Your task to perform on an android device: Add alienware aurora to the cart on ebay, then select checkout. Image 0: 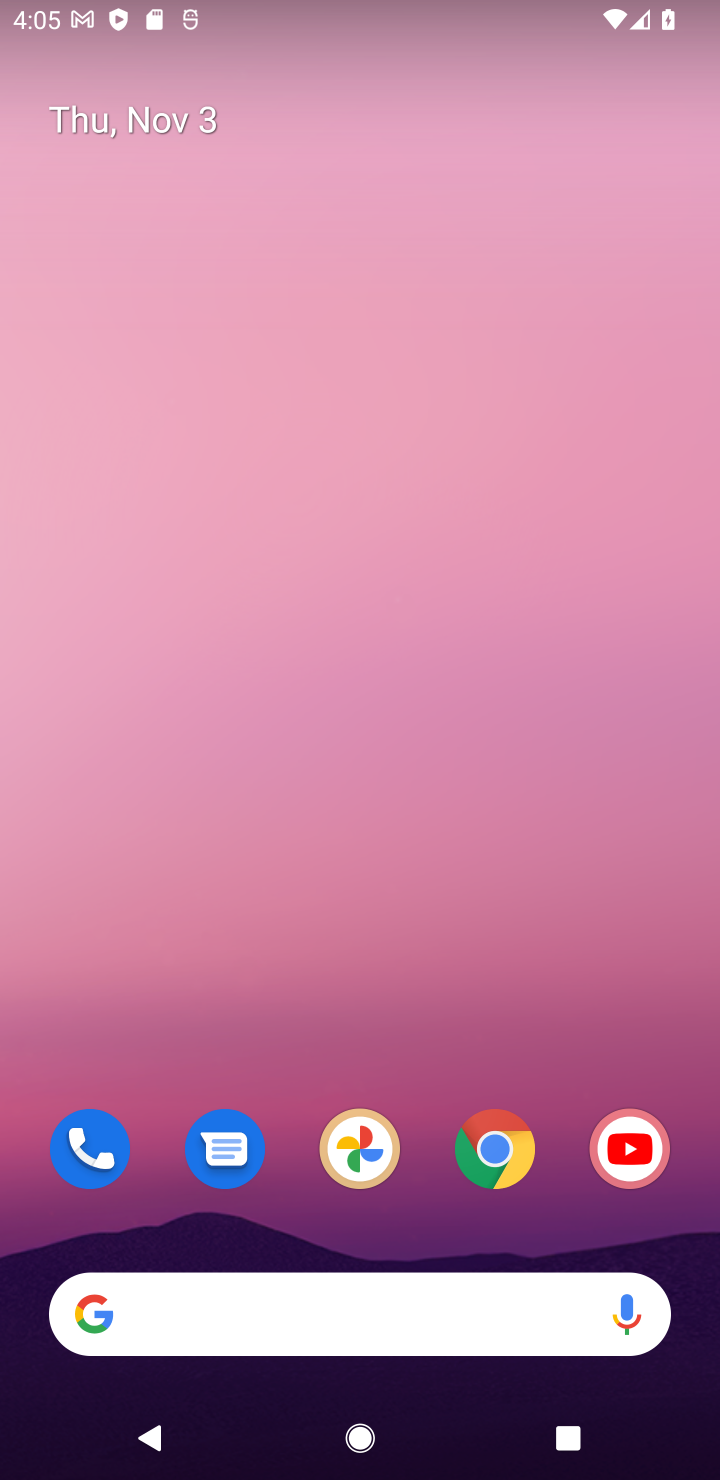
Step 0: drag from (431, 1039) to (343, 18)
Your task to perform on an android device: Add alienware aurora to the cart on ebay, then select checkout. Image 1: 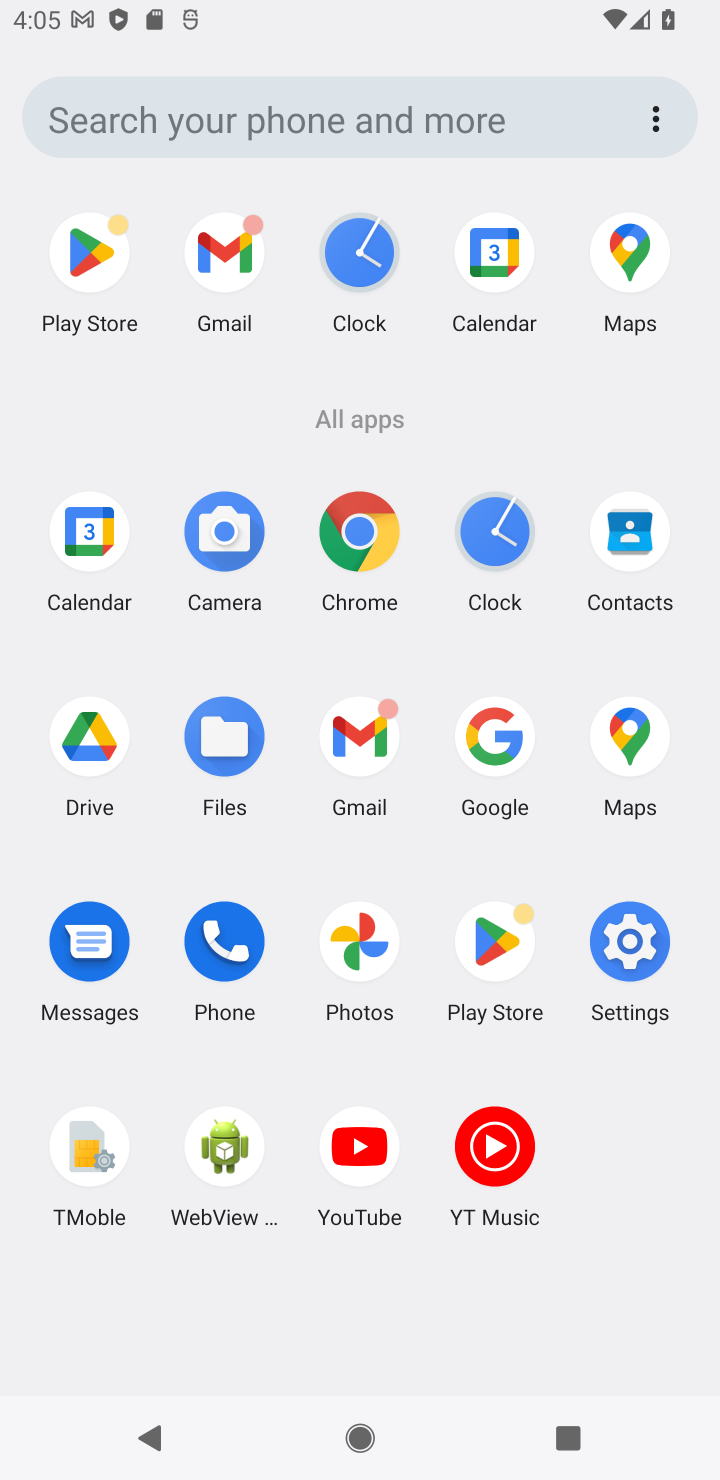
Step 1: click (355, 528)
Your task to perform on an android device: Add alienware aurora to the cart on ebay, then select checkout. Image 2: 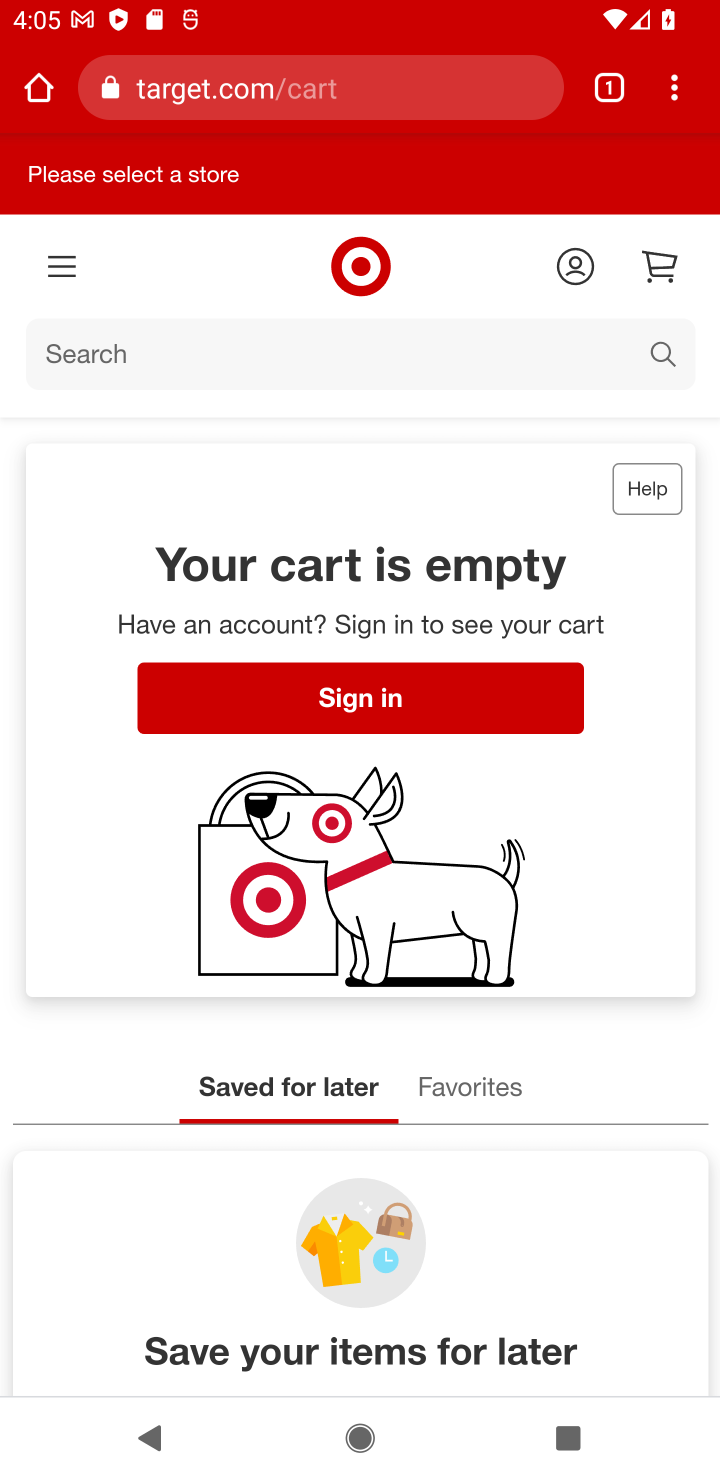
Step 2: click (250, 80)
Your task to perform on an android device: Add alienware aurora to the cart on ebay, then select checkout. Image 3: 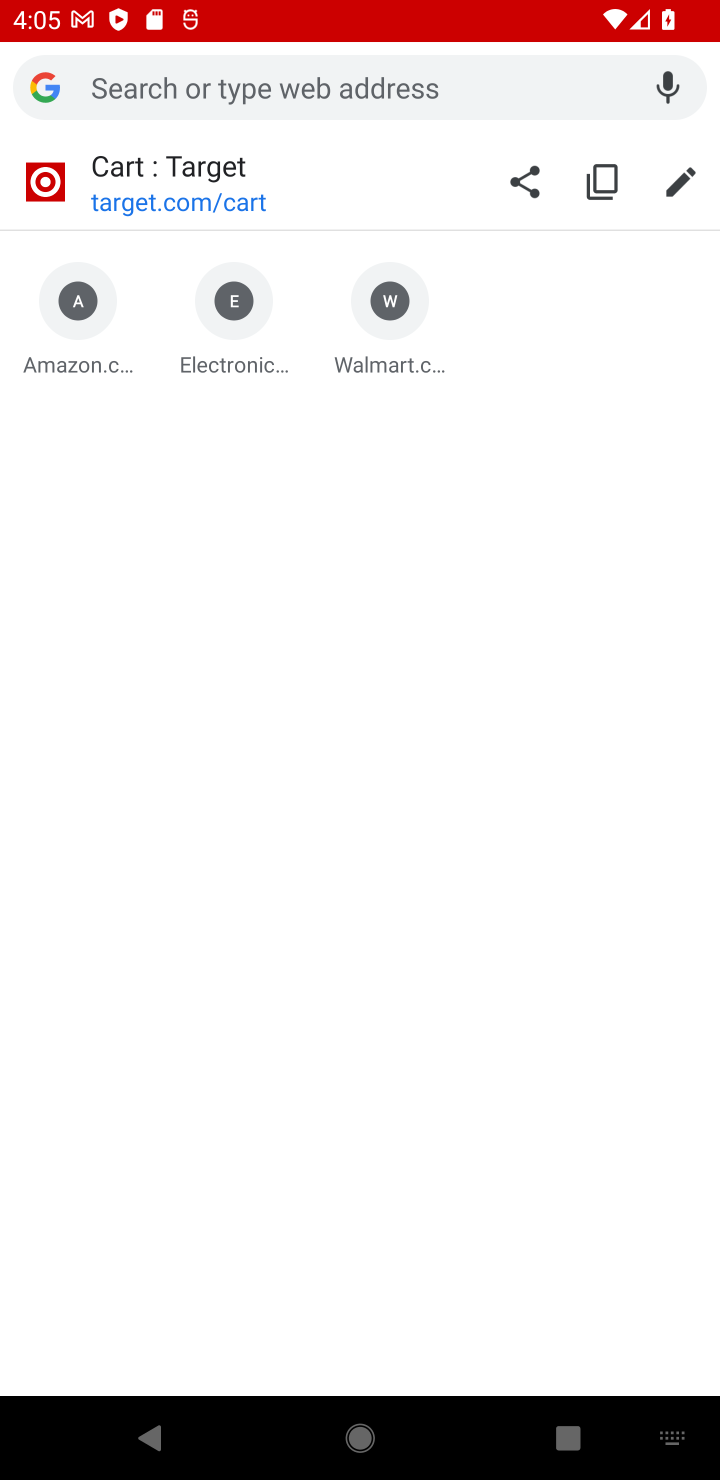
Step 3: type "ebay"
Your task to perform on an android device: Add alienware aurora to the cart on ebay, then select checkout. Image 4: 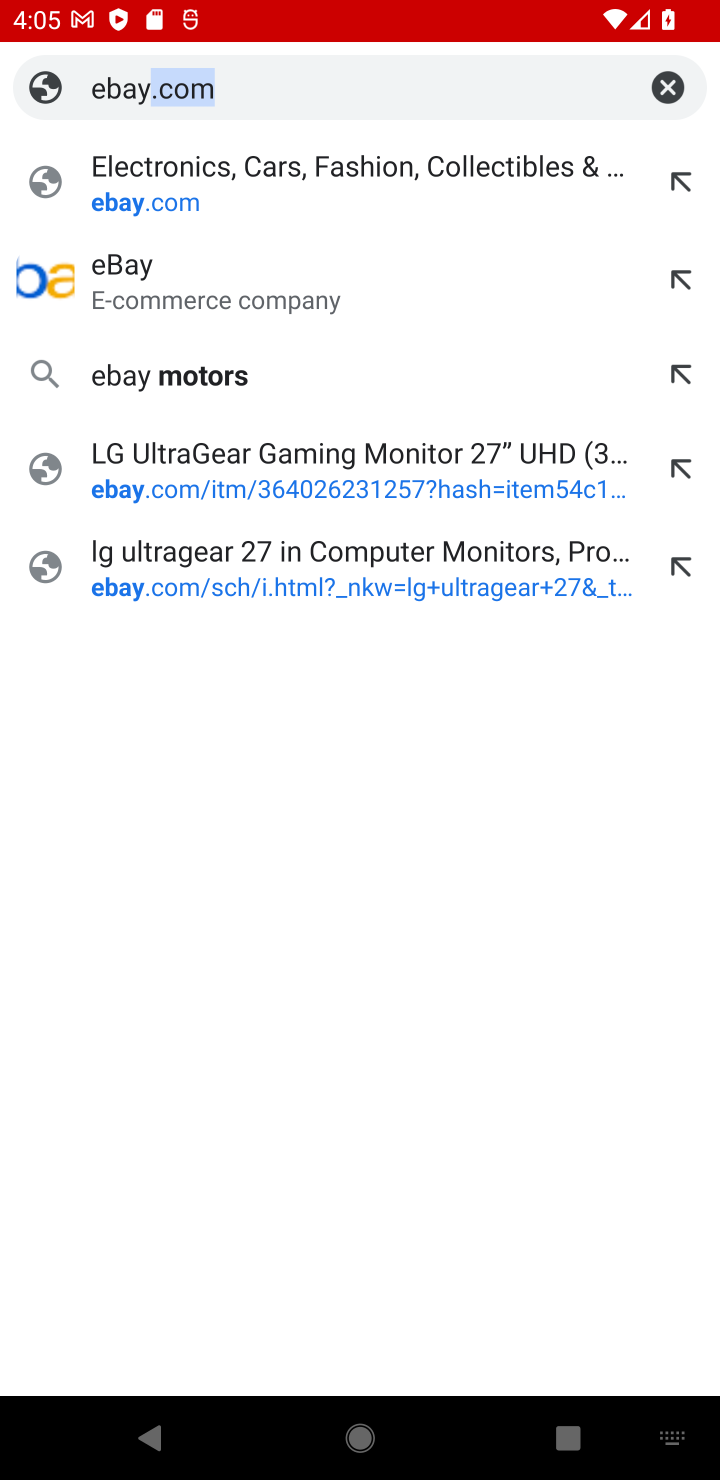
Step 4: click (267, 194)
Your task to perform on an android device: Add alienware aurora to the cart on ebay, then select checkout. Image 5: 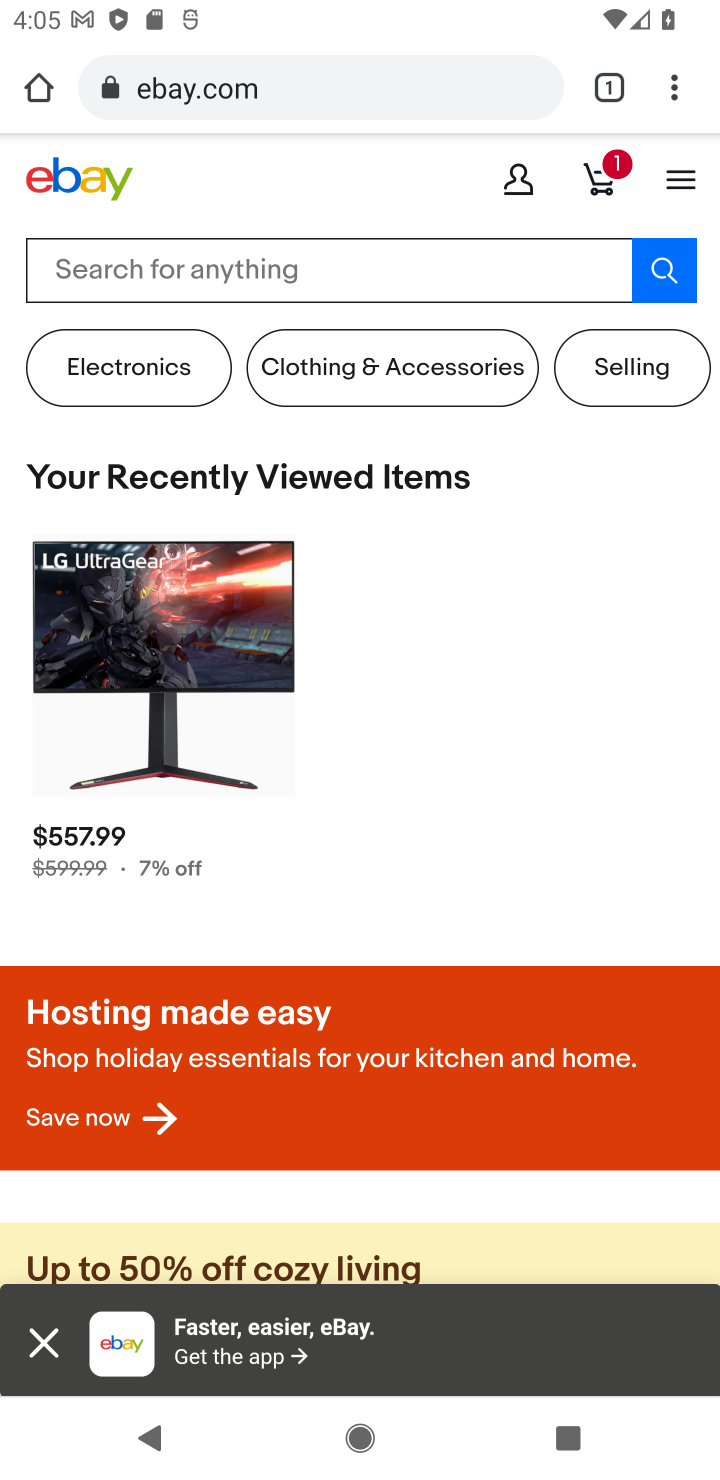
Step 5: click (269, 259)
Your task to perform on an android device: Add alienware aurora to the cart on ebay, then select checkout. Image 6: 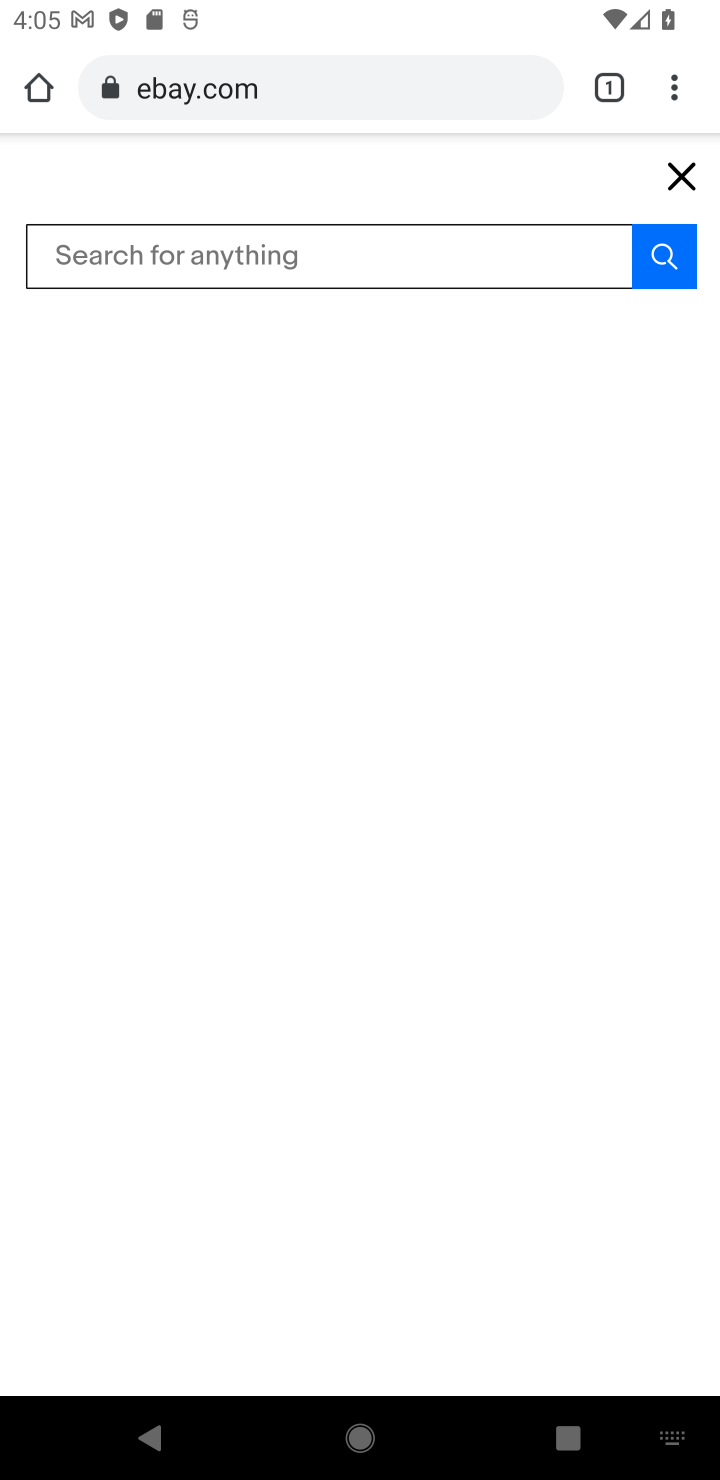
Step 6: type "alienware aurora"
Your task to perform on an android device: Add alienware aurora to the cart on ebay, then select checkout. Image 7: 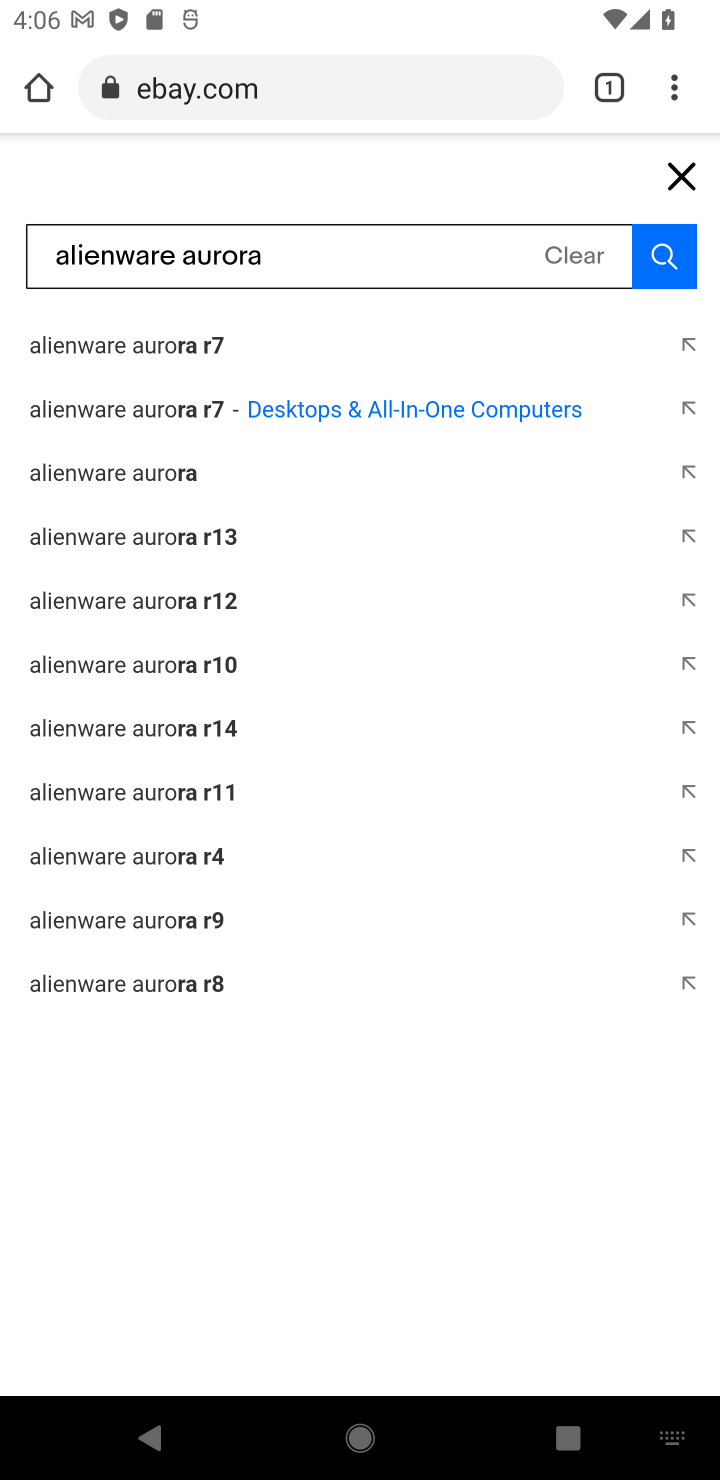
Step 7: click (380, 406)
Your task to perform on an android device: Add alienware aurora to the cart on ebay, then select checkout. Image 8: 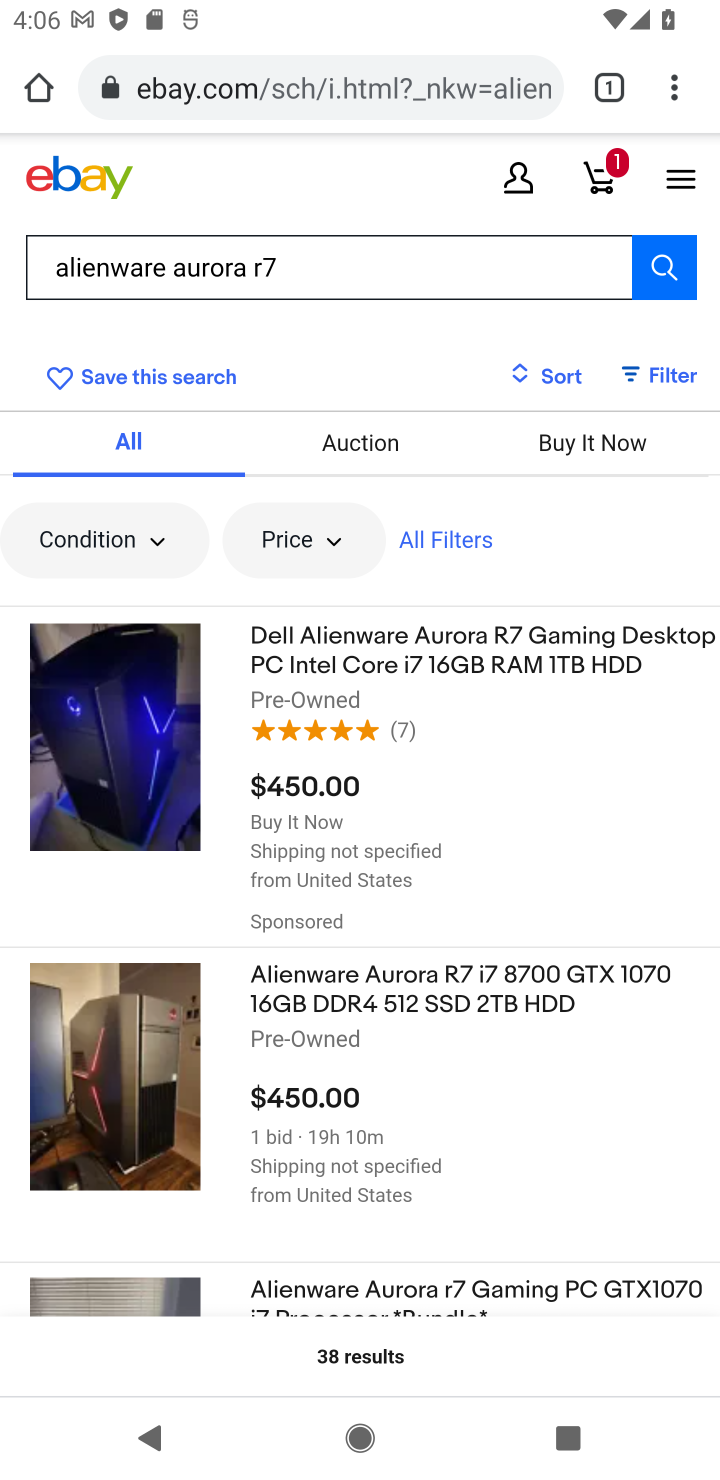
Step 8: click (348, 668)
Your task to perform on an android device: Add alienware aurora to the cart on ebay, then select checkout. Image 9: 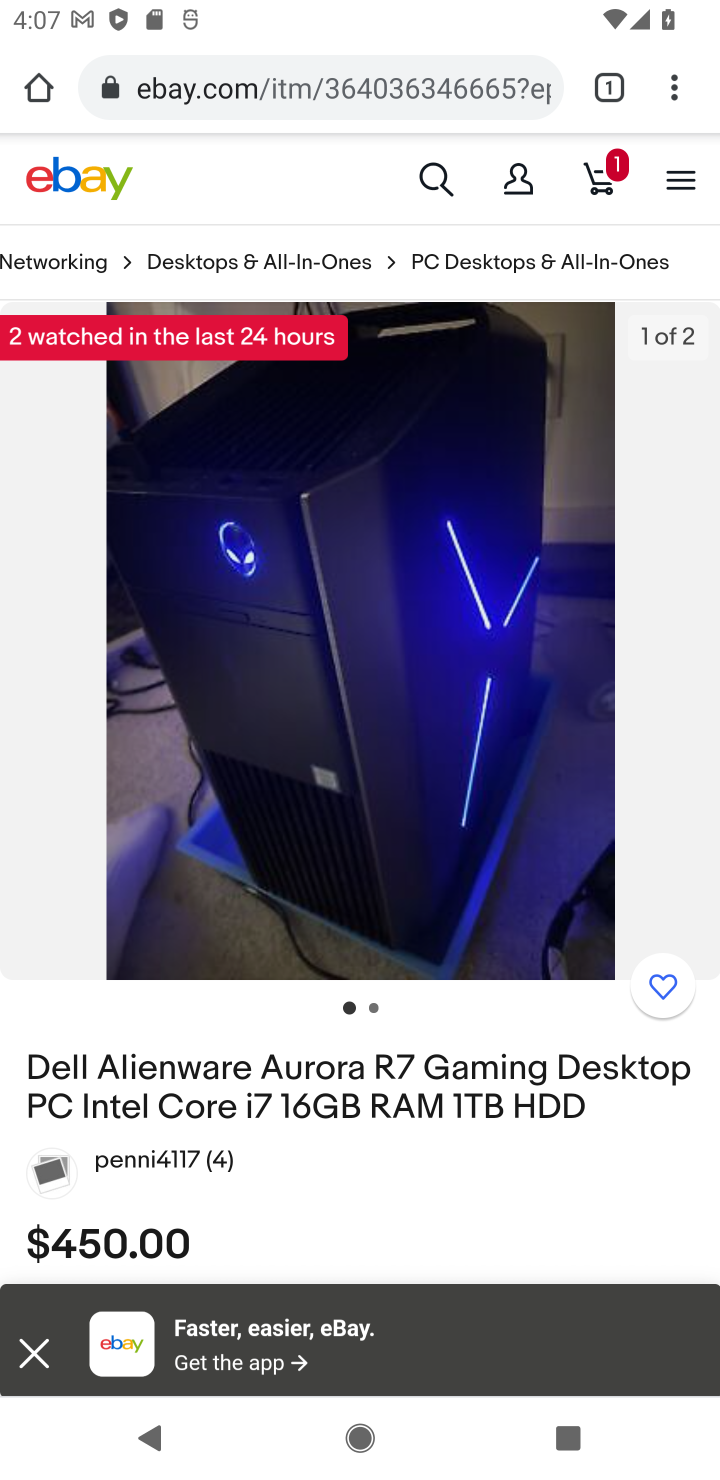
Step 9: click (363, 1321)
Your task to perform on an android device: Add alienware aurora to the cart on ebay, then select checkout. Image 10: 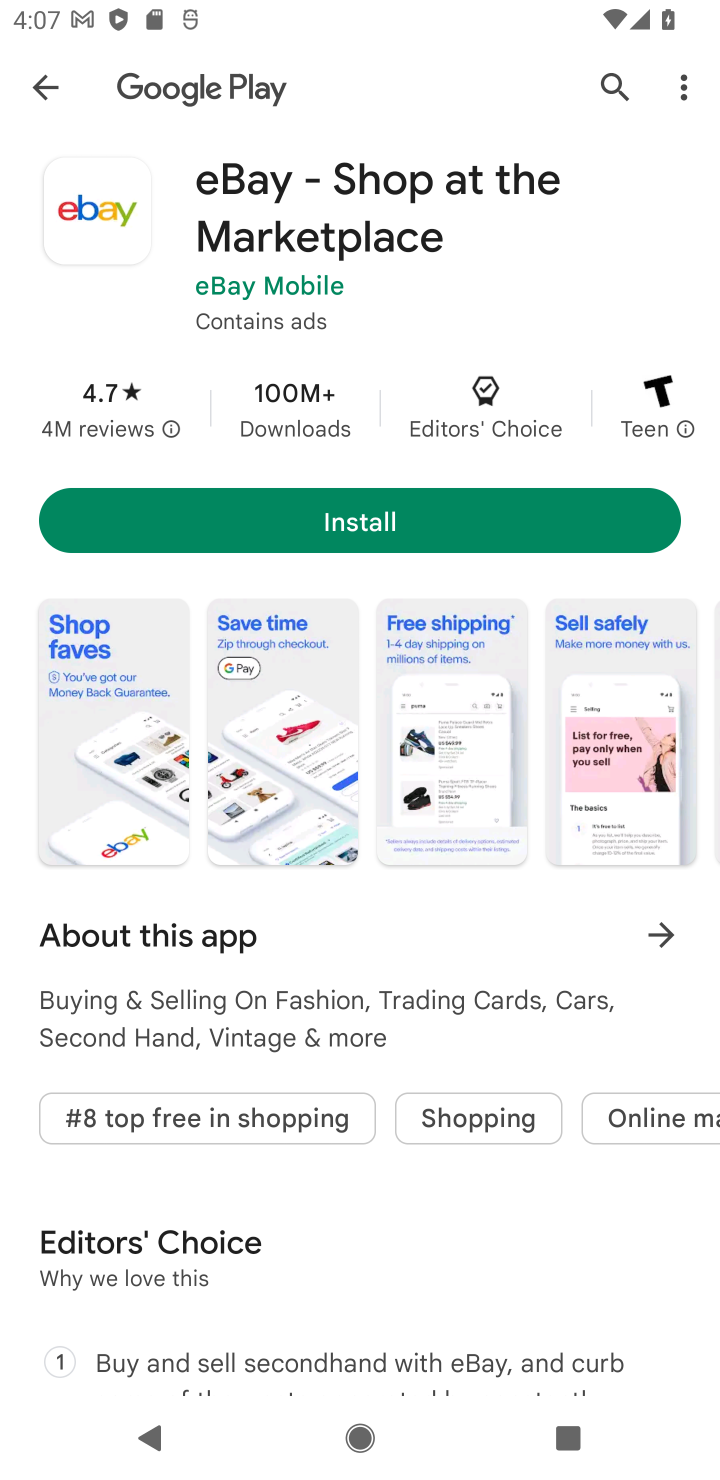
Step 10: click (41, 99)
Your task to perform on an android device: Add alienware aurora to the cart on ebay, then select checkout. Image 11: 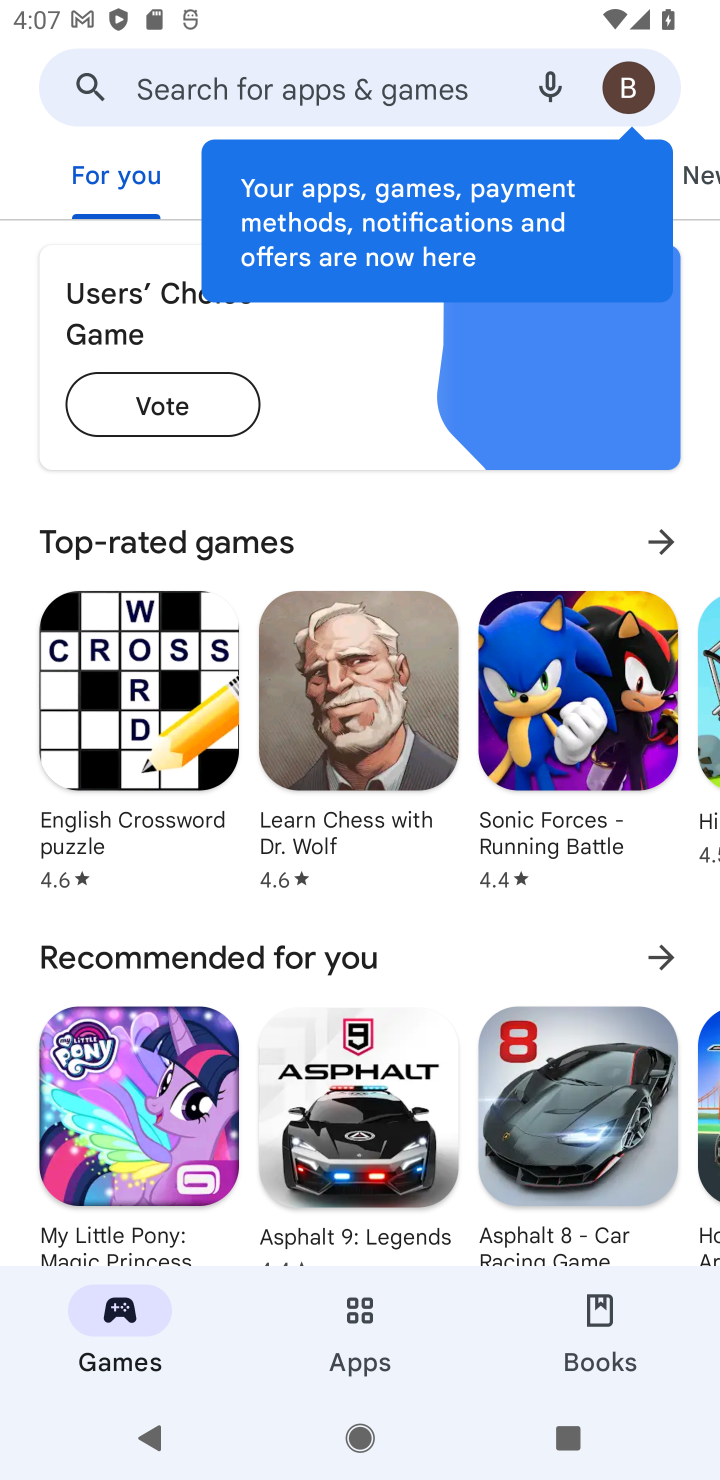
Step 11: press back button
Your task to perform on an android device: Add alienware aurora to the cart on ebay, then select checkout. Image 12: 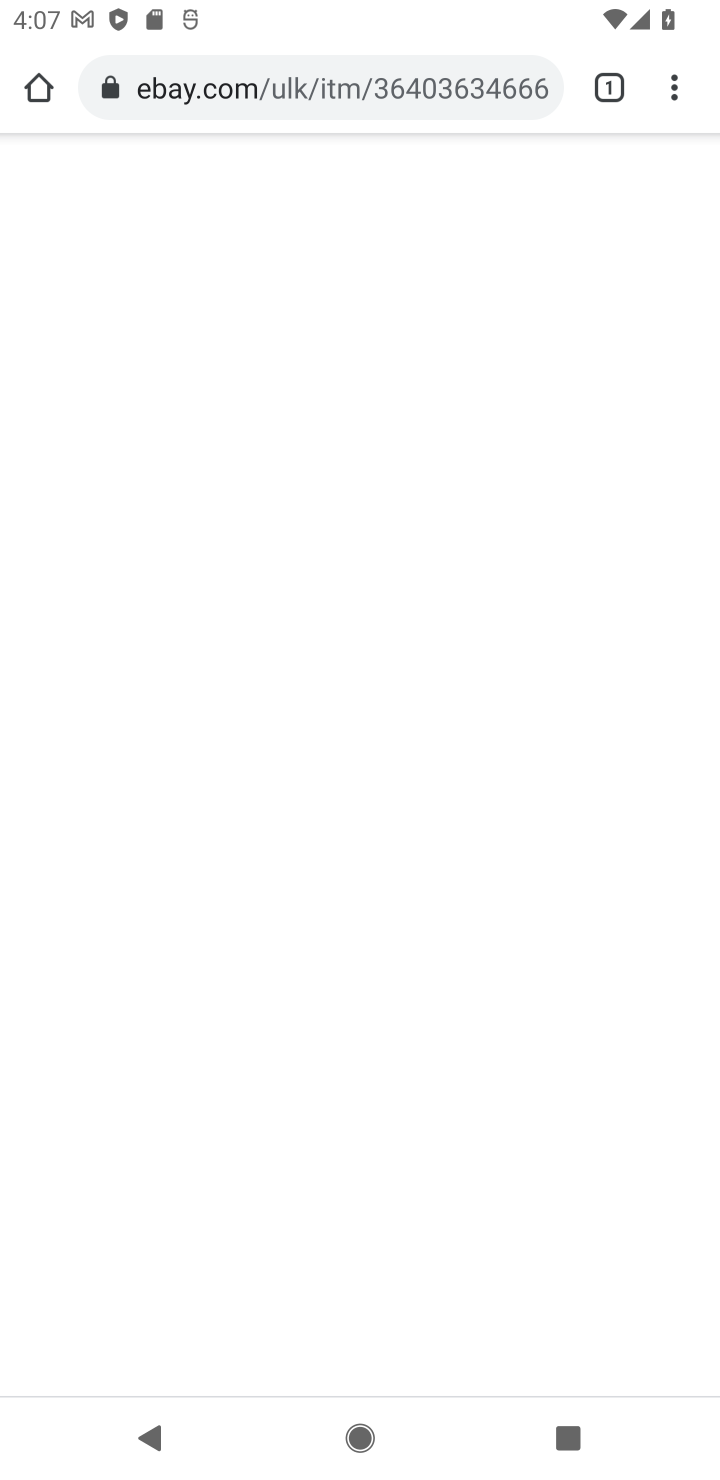
Step 12: press back button
Your task to perform on an android device: Add alienware aurora to the cart on ebay, then select checkout. Image 13: 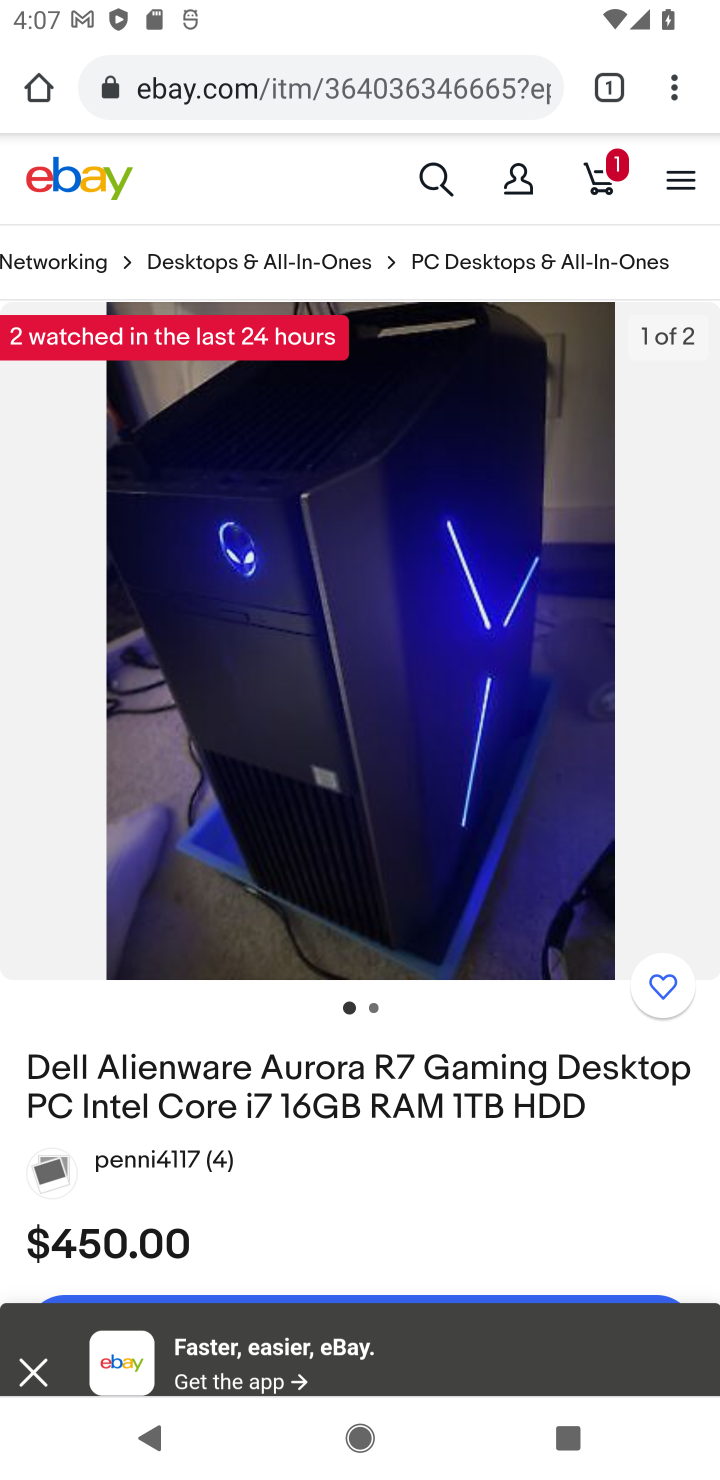
Step 13: drag from (469, 1129) to (427, 469)
Your task to perform on an android device: Add alienware aurora to the cart on ebay, then select checkout. Image 14: 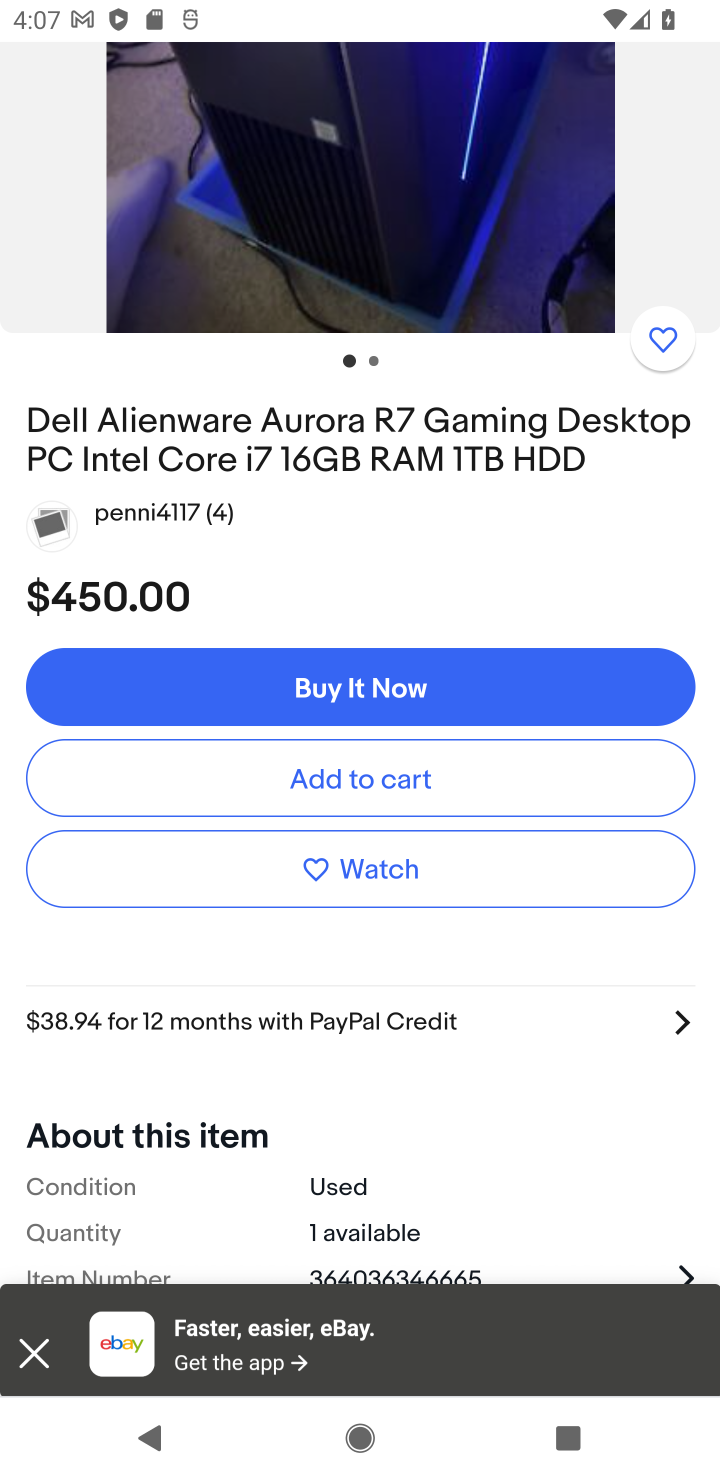
Step 14: click (376, 778)
Your task to perform on an android device: Add alienware aurora to the cart on ebay, then select checkout. Image 15: 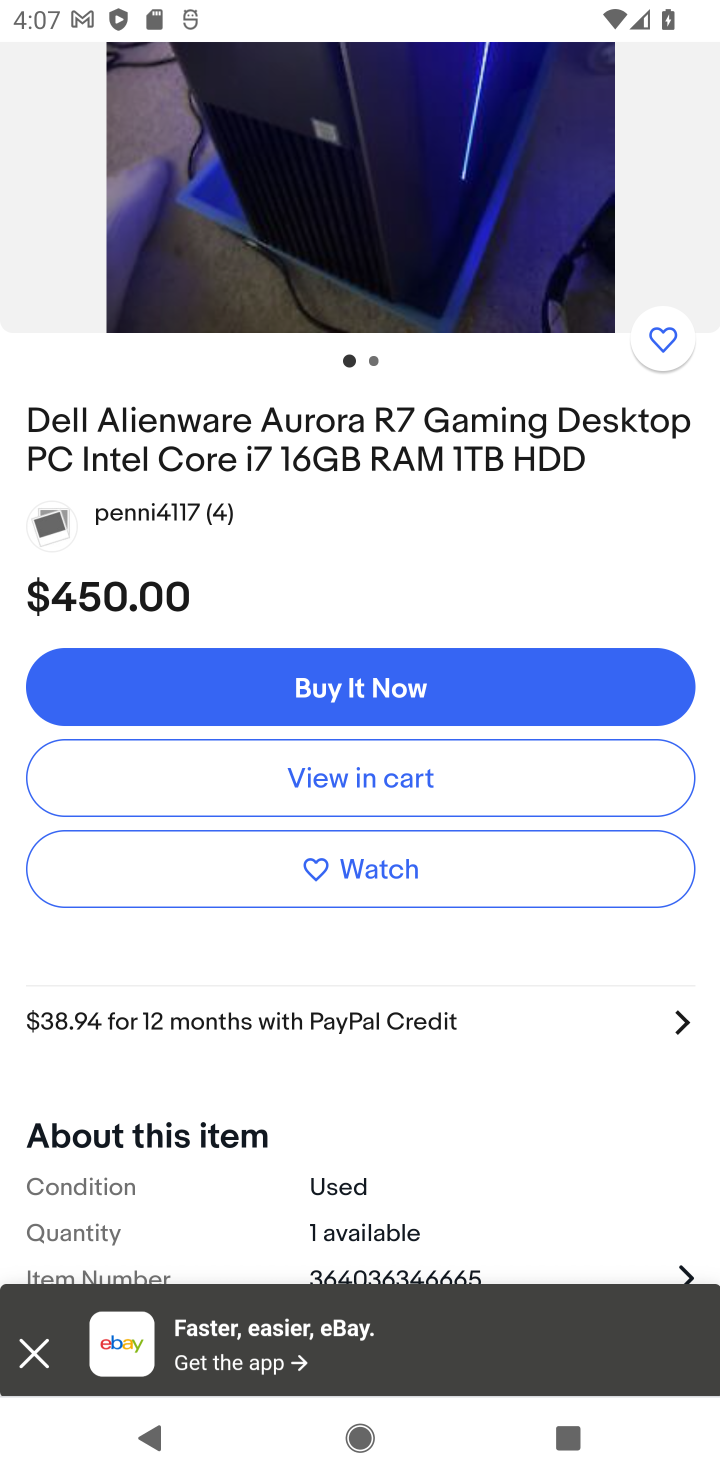
Step 15: click (376, 778)
Your task to perform on an android device: Add alienware aurora to the cart on ebay, then select checkout. Image 16: 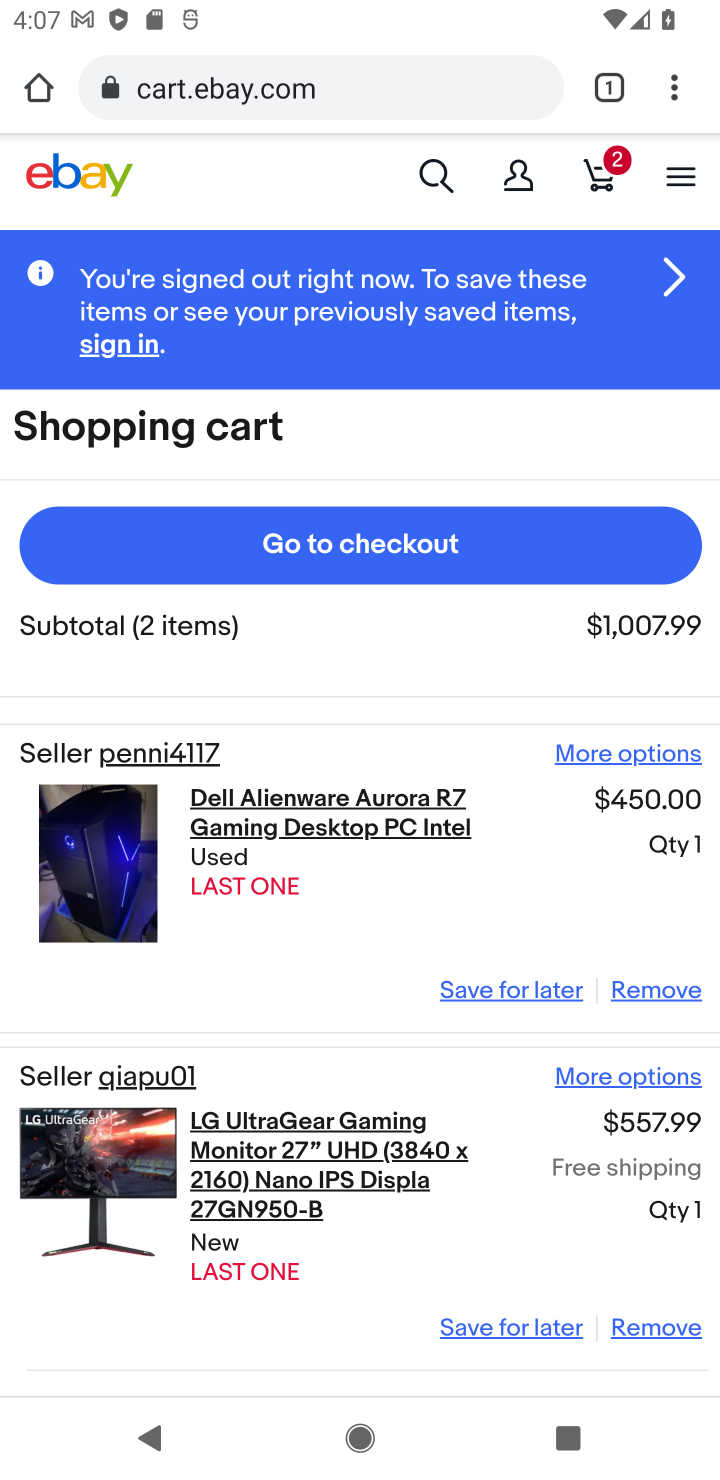
Step 16: click (322, 510)
Your task to perform on an android device: Add alienware aurora to the cart on ebay, then select checkout. Image 17: 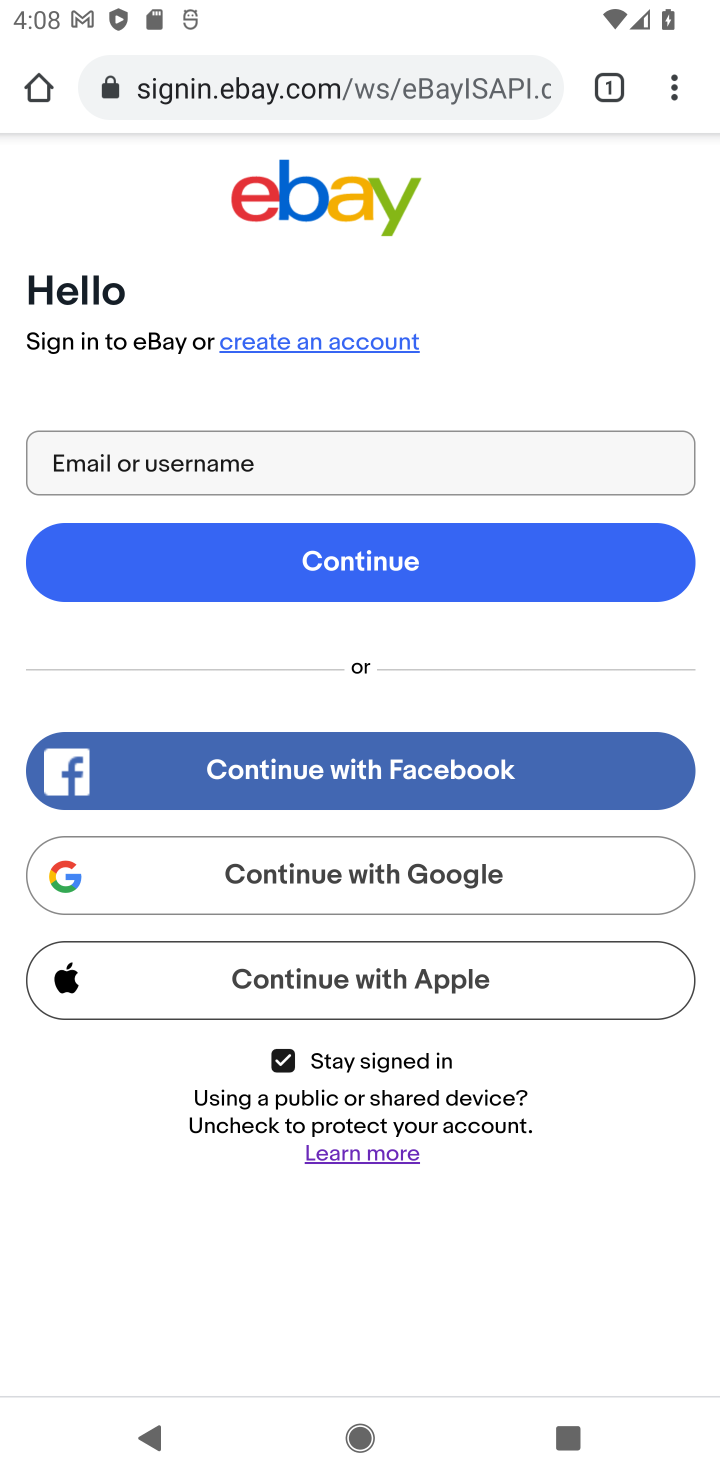
Step 17: task complete